Your task to perform on an android device: delete location history Image 0: 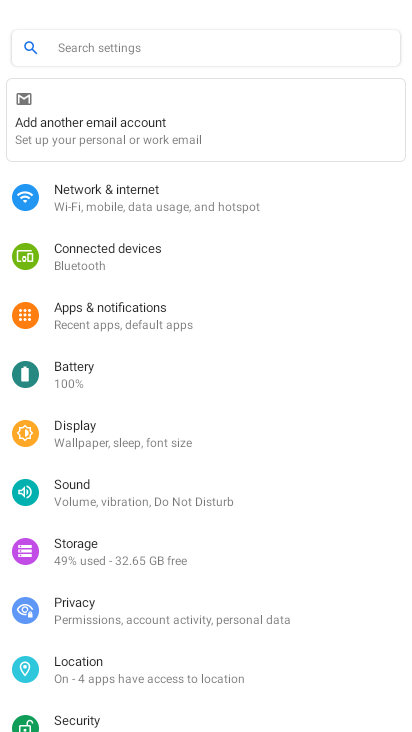
Step 0: press home button
Your task to perform on an android device: delete location history Image 1: 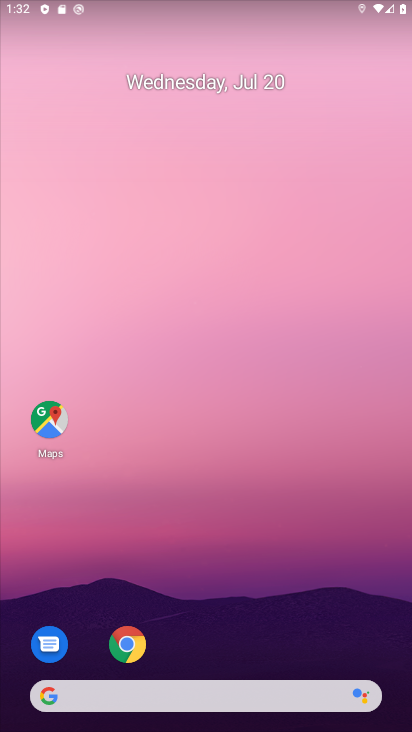
Step 1: click (51, 420)
Your task to perform on an android device: delete location history Image 2: 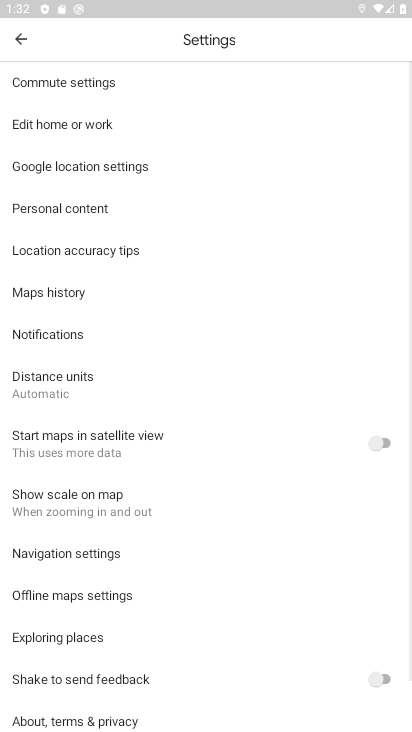
Step 2: click (21, 55)
Your task to perform on an android device: delete location history Image 3: 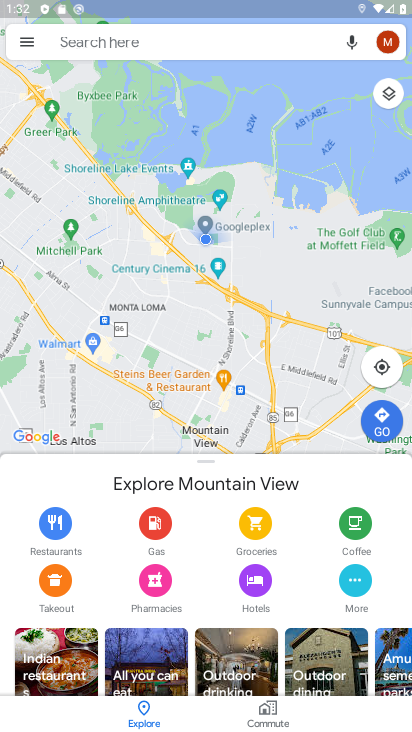
Step 3: click (30, 36)
Your task to perform on an android device: delete location history Image 4: 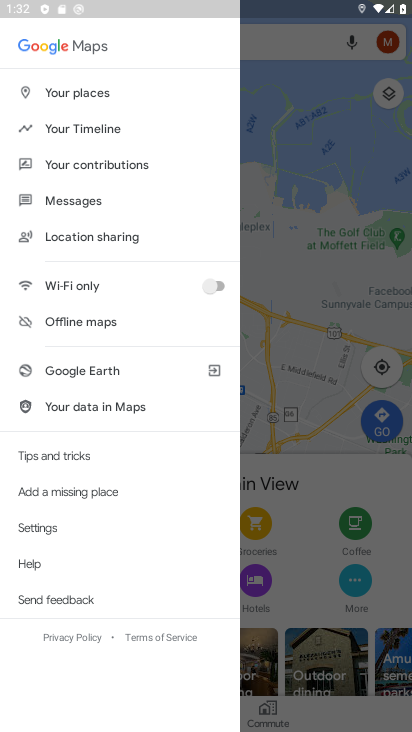
Step 4: click (49, 123)
Your task to perform on an android device: delete location history Image 5: 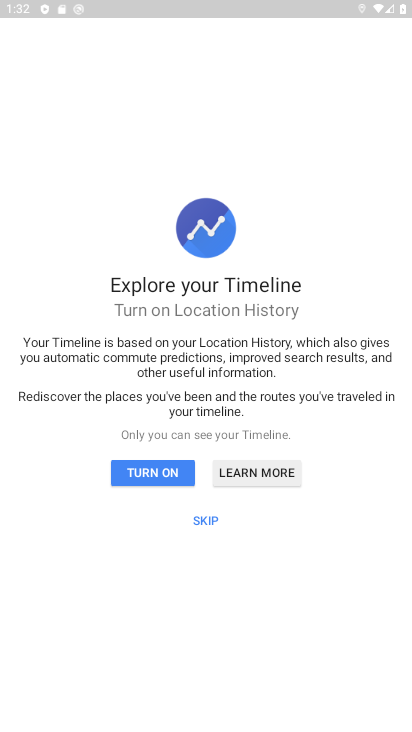
Step 5: click (209, 522)
Your task to perform on an android device: delete location history Image 6: 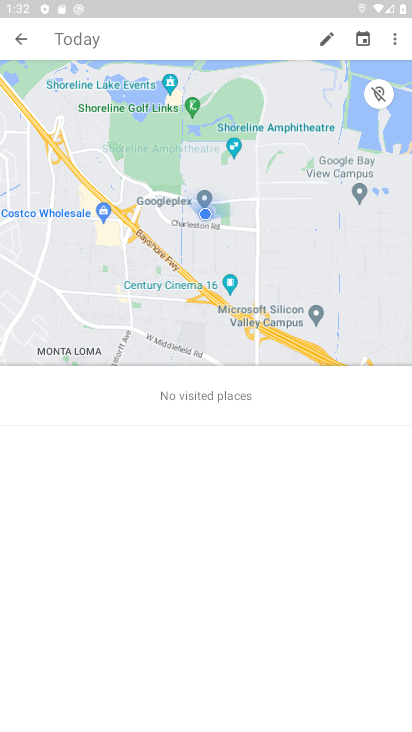
Step 6: click (396, 43)
Your task to perform on an android device: delete location history Image 7: 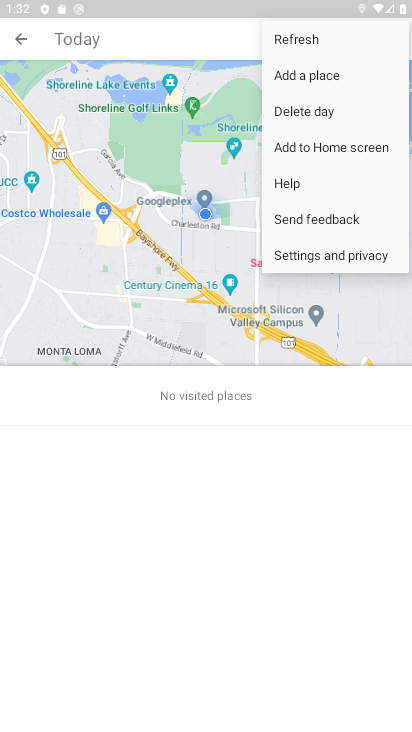
Step 7: click (318, 251)
Your task to perform on an android device: delete location history Image 8: 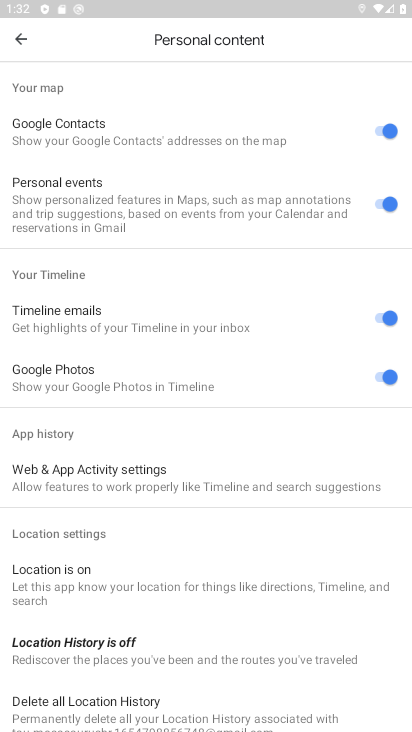
Step 8: click (118, 697)
Your task to perform on an android device: delete location history Image 9: 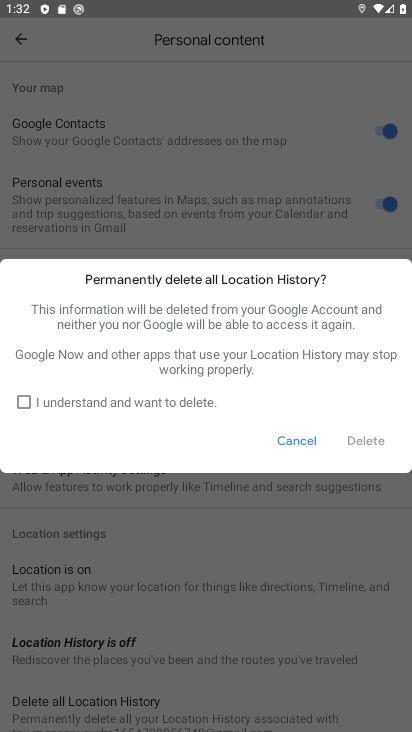
Step 9: click (24, 401)
Your task to perform on an android device: delete location history Image 10: 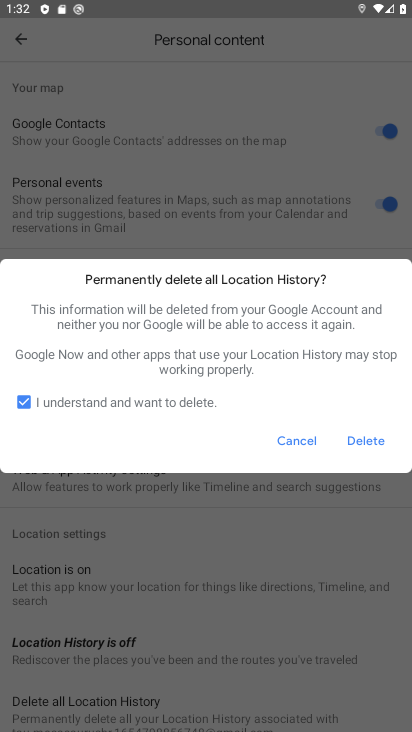
Step 10: click (364, 444)
Your task to perform on an android device: delete location history Image 11: 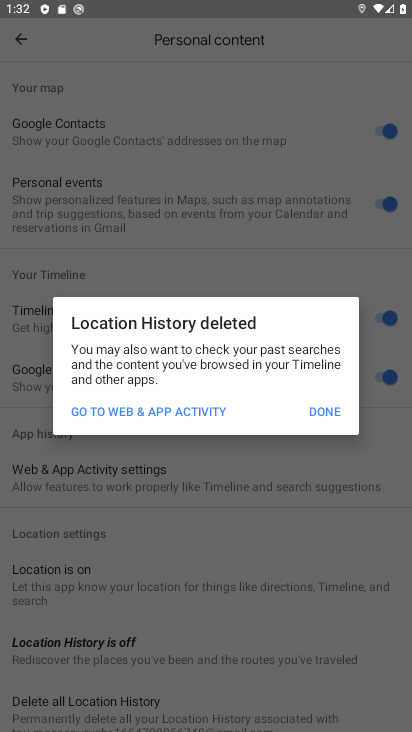
Step 11: task complete